Your task to perform on an android device: Open CNN.com Image 0: 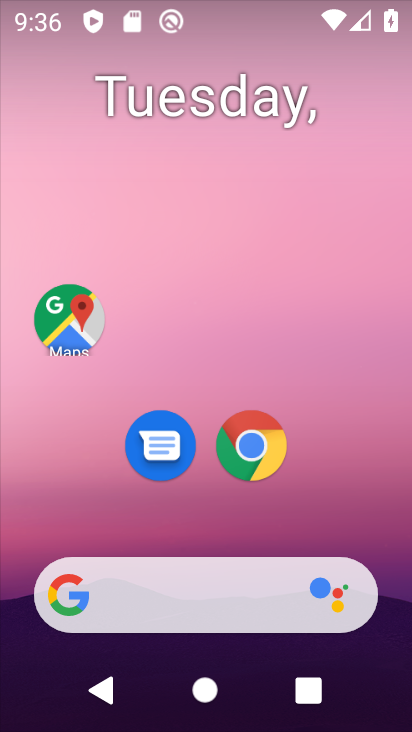
Step 0: drag from (196, 519) to (236, 30)
Your task to perform on an android device: Open CNN.com Image 1: 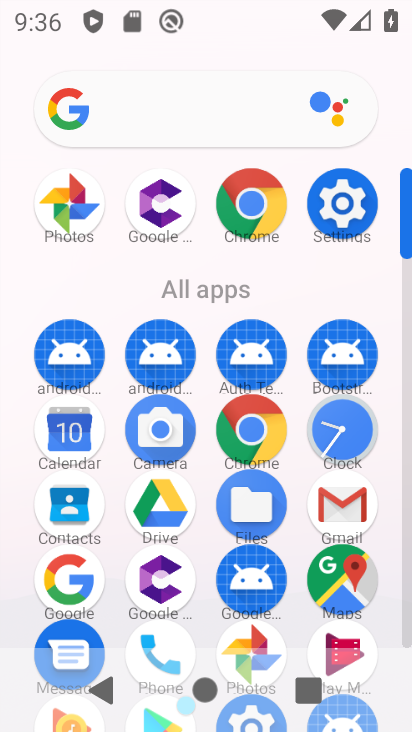
Step 1: click (247, 195)
Your task to perform on an android device: Open CNN.com Image 2: 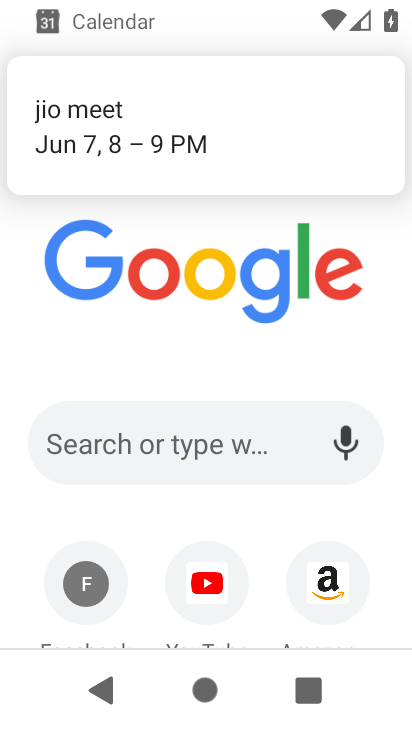
Step 2: click (178, 433)
Your task to perform on an android device: Open CNN.com Image 3: 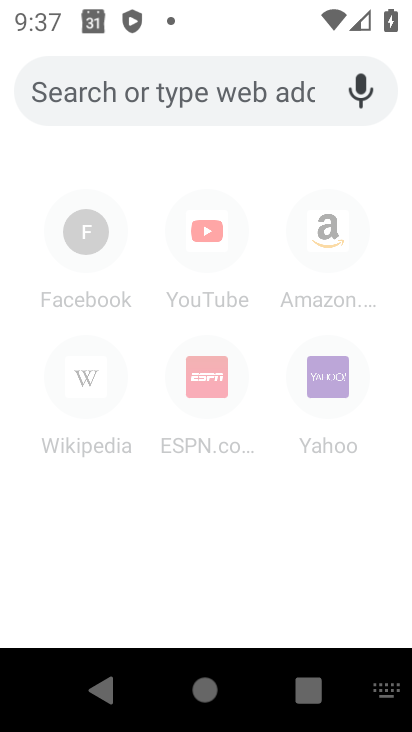
Step 3: type "cnn.com"
Your task to perform on an android device: Open CNN.com Image 4: 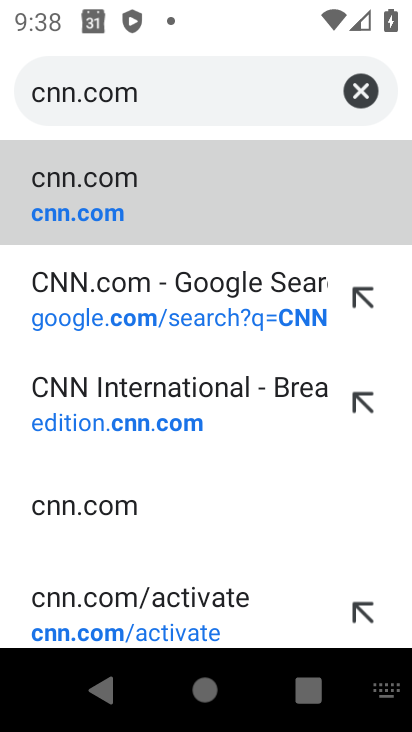
Step 4: click (135, 288)
Your task to perform on an android device: Open CNN.com Image 5: 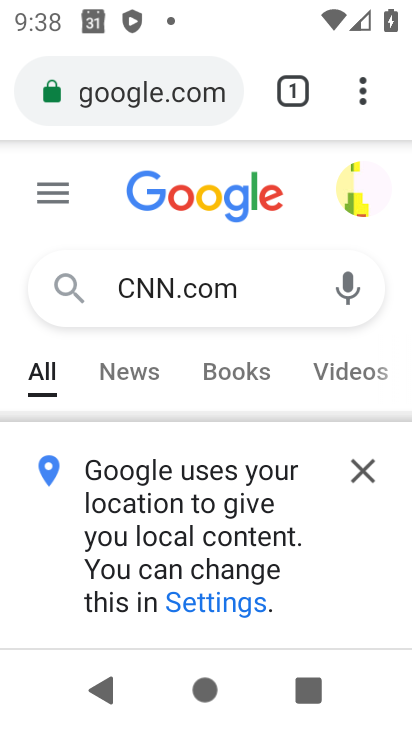
Step 5: drag from (205, 548) to (224, 311)
Your task to perform on an android device: Open CNN.com Image 6: 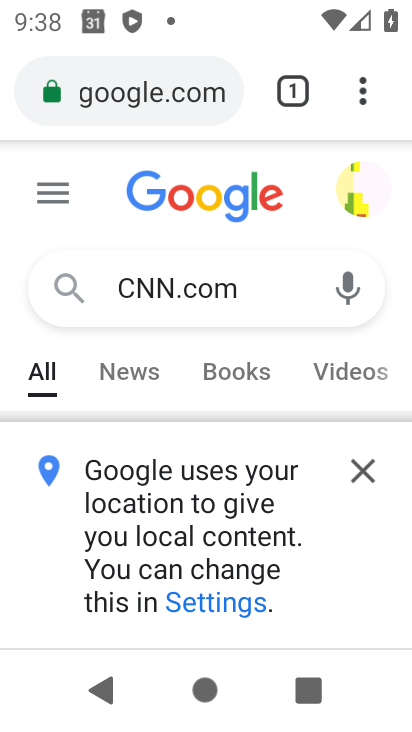
Step 6: click (225, 263)
Your task to perform on an android device: Open CNN.com Image 7: 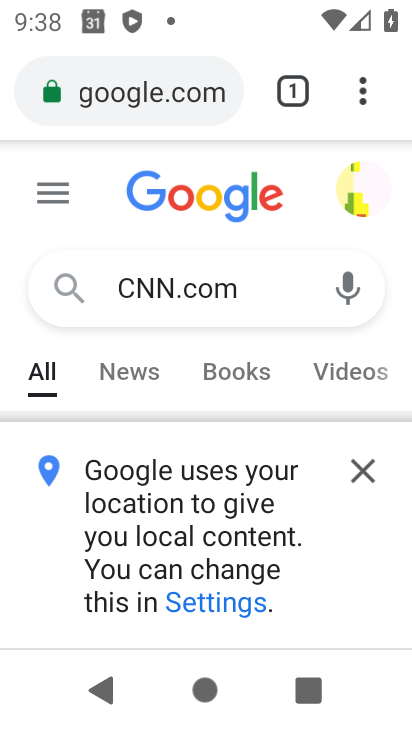
Step 7: drag from (218, 578) to (249, 181)
Your task to perform on an android device: Open CNN.com Image 8: 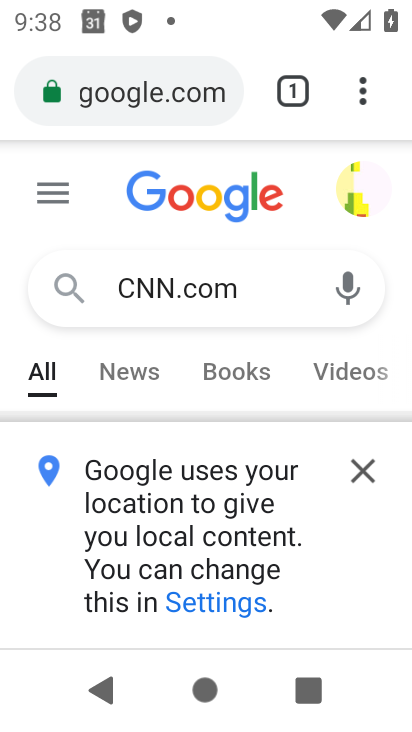
Step 8: drag from (214, 580) to (225, 330)
Your task to perform on an android device: Open CNN.com Image 9: 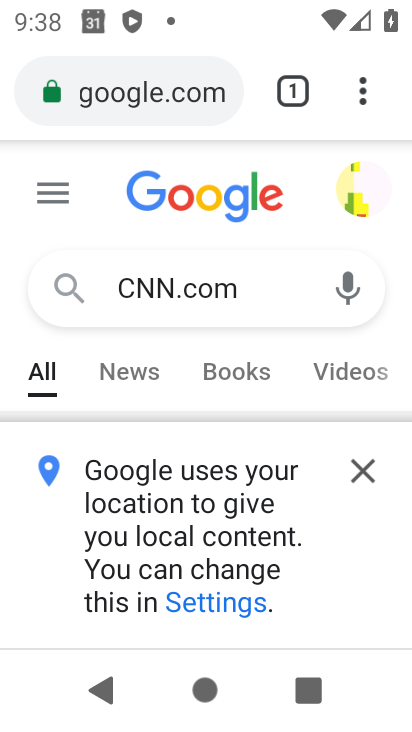
Step 9: click (352, 464)
Your task to perform on an android device: Open CNN.com Image 10: 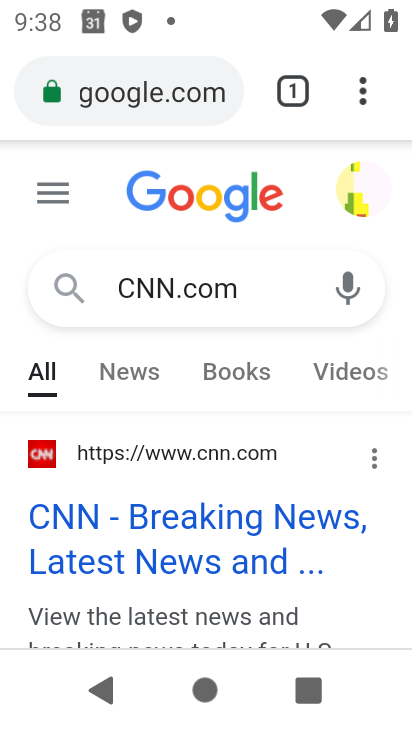
Step 10: click (184, 526)
Your task to perform on an android device: Open CNN.com Image 11: 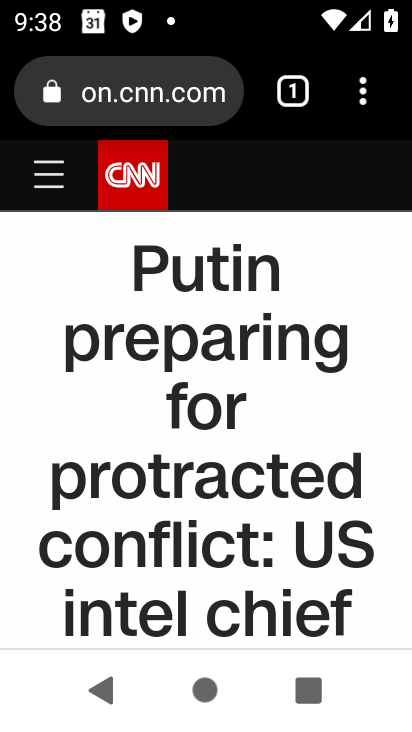
Step 11: task complete